Your task to perform on an android device: open a bookmark in the chrome app Image 0: 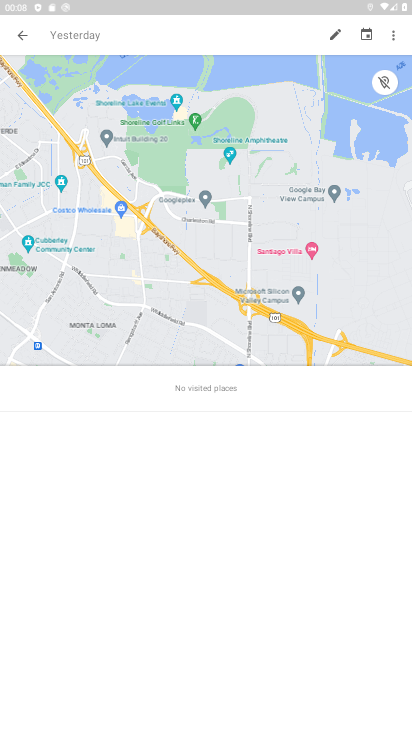
Step 0: press home button
Your task to perform on an android device: open a bookmark in the chrome app Image 1: 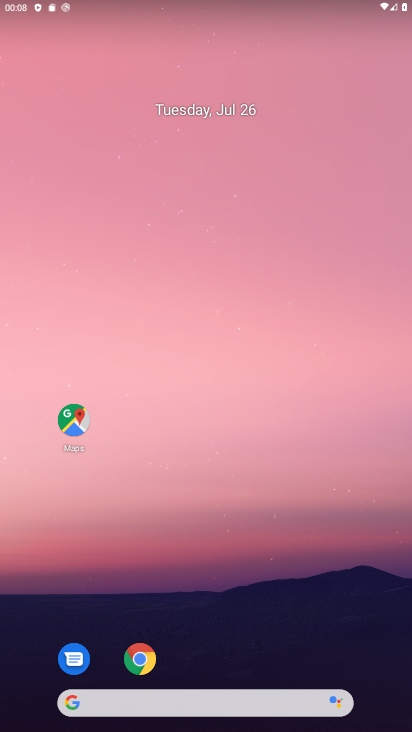
Step 1: drag from (247, 604) to (219, 0)
Your task to perform on an android device: open a bookmark in the chrome app Image 2: 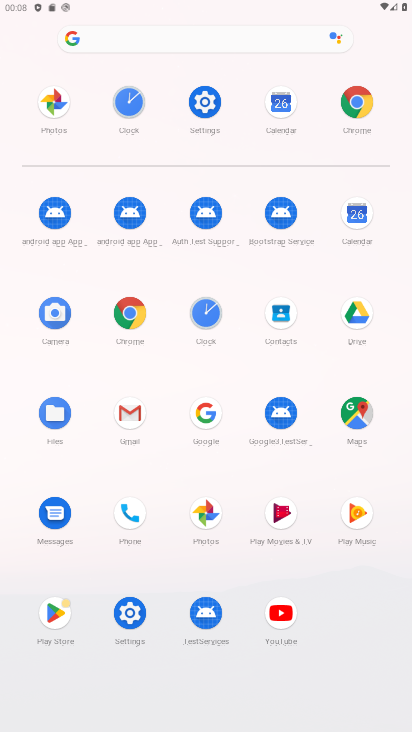
Step 2: click (364, 105)
Your task to perform on an android device: open a bookmark in the chrome app Image 3: 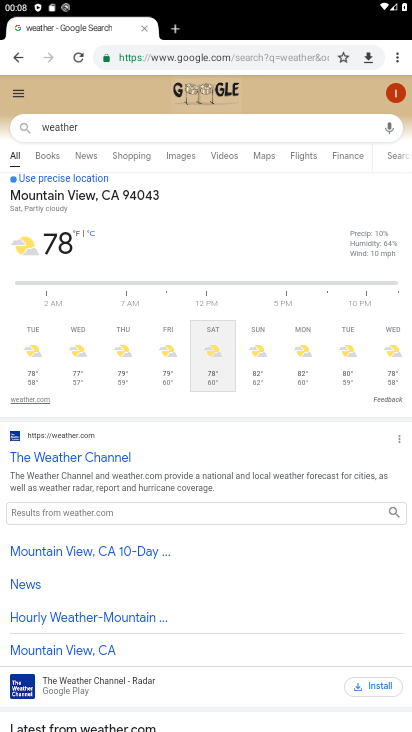
Step 3: drag from (393, 57) to (266, 121)
Your task to perform on an android device: open a bookmark in the chrome app Image 4: 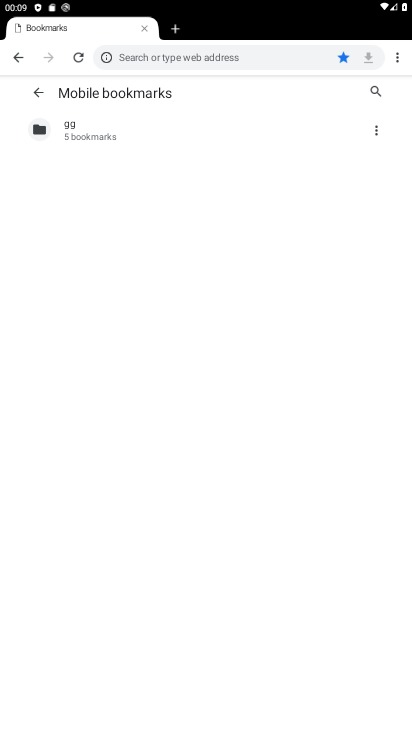
Step 4: click (125, 136)
Your task to perform on an android device: open a bookmark in the chrome app Image 5: 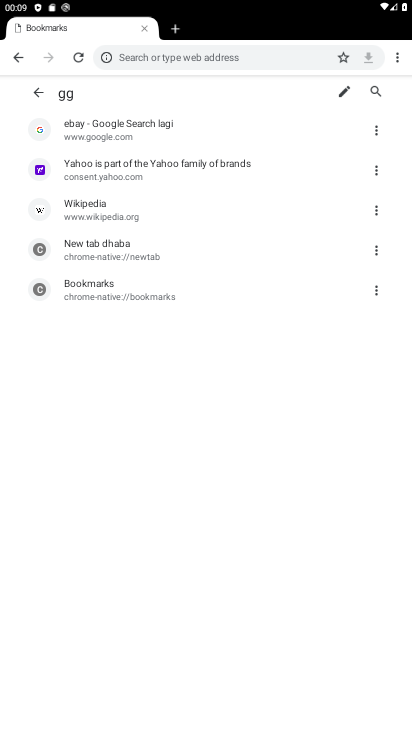
Step 5: click (116, 152)
Your task to perform on an android device: open a bookmark in the chrome app Image 6: 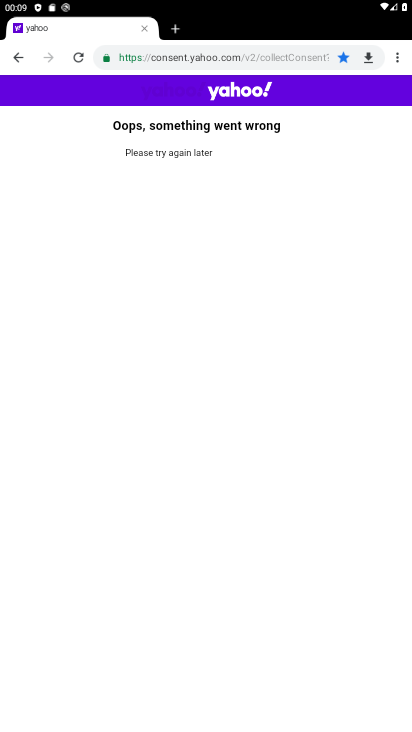
Step 6: task complete